Your task to perform on an android device: turn notification dots off Image 0: 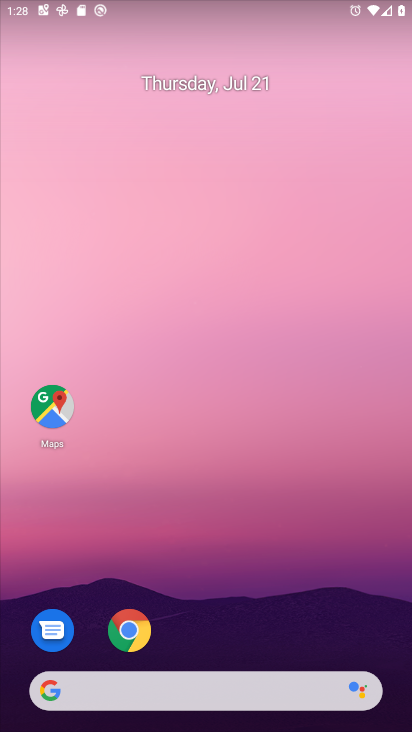
Step 0: drag from (172, 638) to (211, 135)
Your task to perform on an android device: turn notification dots off Image 1: 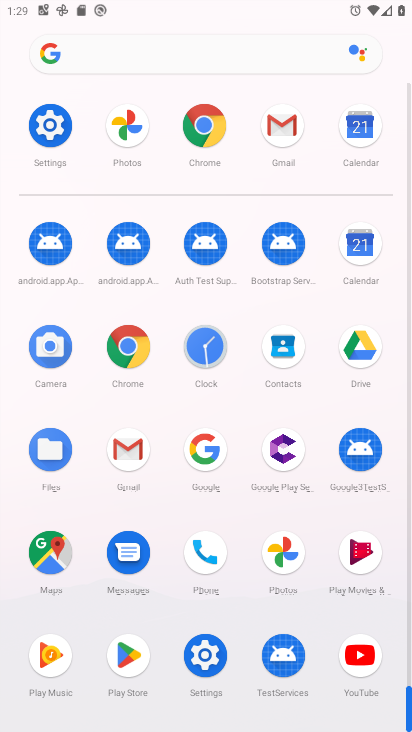
Step 1: click (200, 645)
Your task to perform on an android device: turn notification dots off Image 2: 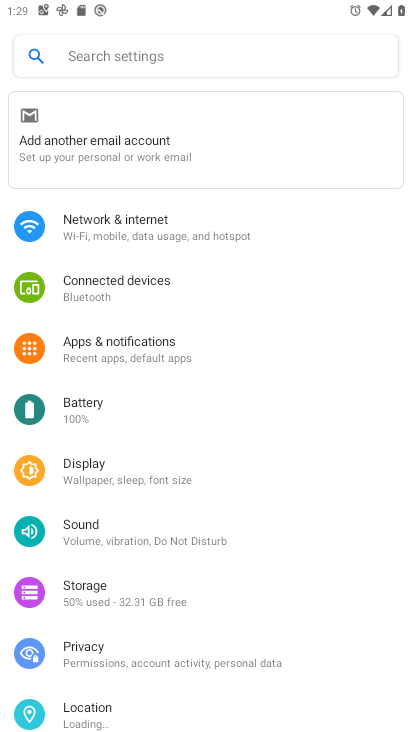
Step 2: click (127, 345)
Your task to perform on an android device: turn notification dots off Image 3: 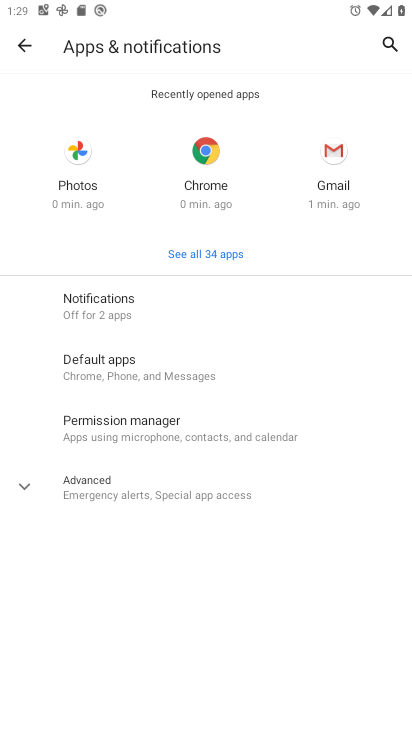
Step 3: click (111, 308)
Your task to perform on an android device: turn notification dots off Image 4: 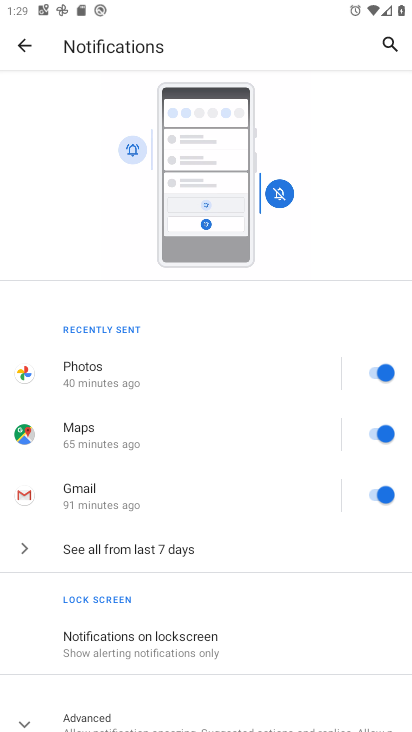
Step 4: click (129, 715)
Your task to perform on an android device: turn notification dots off Image 5: 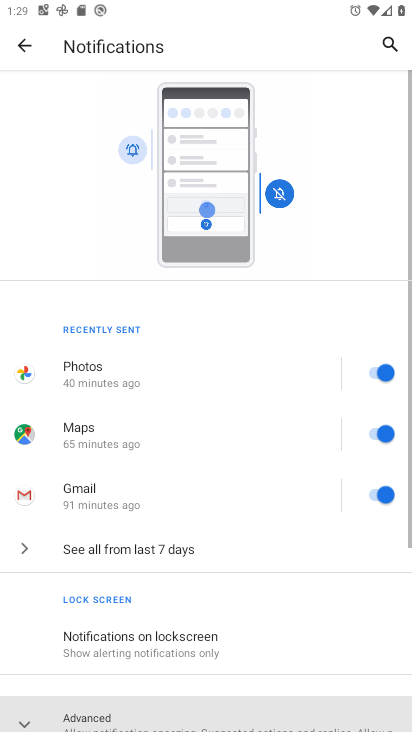
Step 5: task complete